Your task to perform on an android device: snooze an email in the gmail app Image 0: 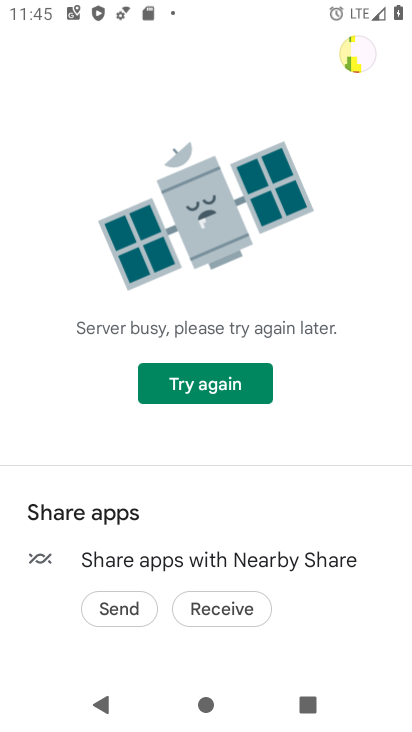
Step 0: press home button
Your task to perform on an android device: snooze an email in the gmail app Image 1: 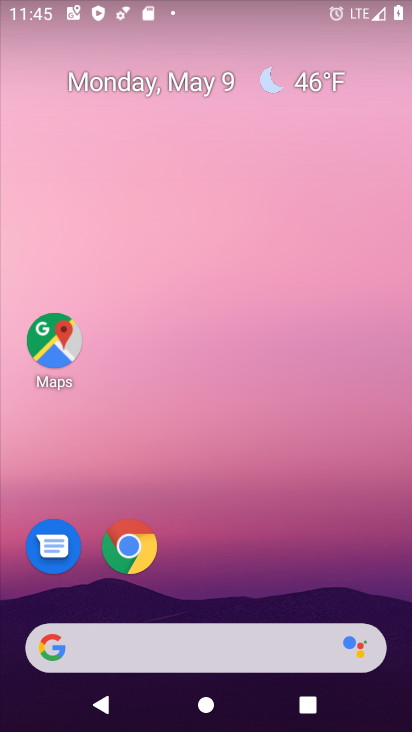
Step 1: drag from (344, 589) to (374, 0)
Your task to perform on an android device: snooze an email in the gmail app Image 2: 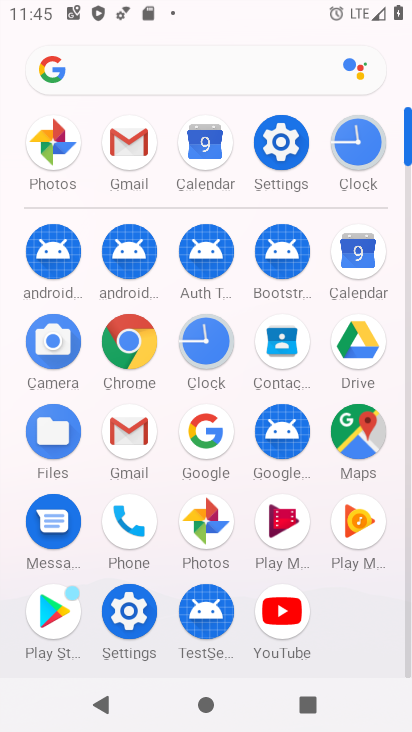
Step 2: click (123, 150)
Your task to perform on an android device: snooze an email in the gmail app Image 3: 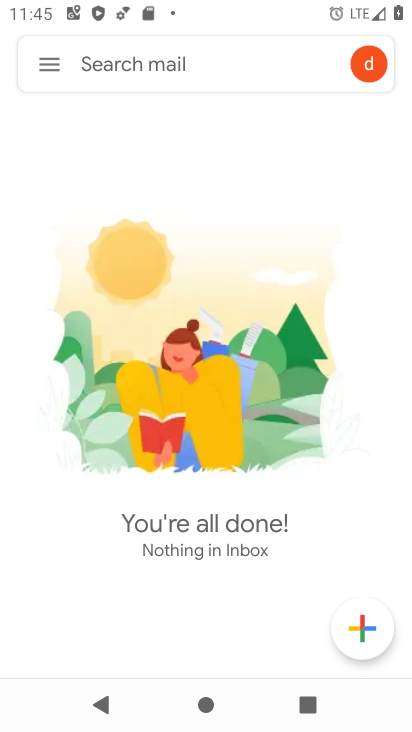
Step 3: click (47, 68)
Your task to perform on an android device: snooze an email in the gmail app Image 4: 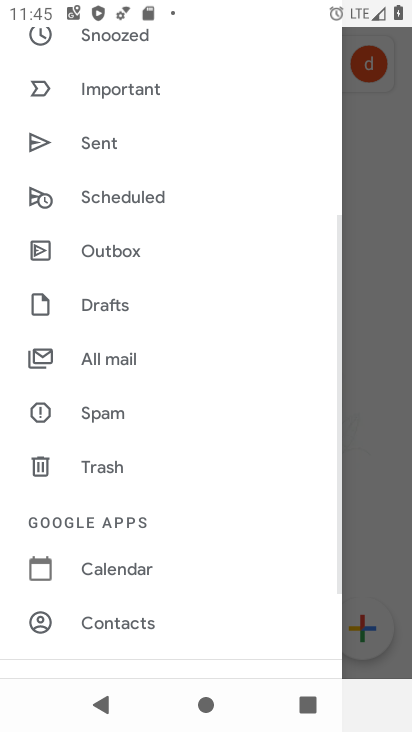
Step 4: click (127, 356)
Your task to perform on an android device: snooze an email in the gmail app Image 5: 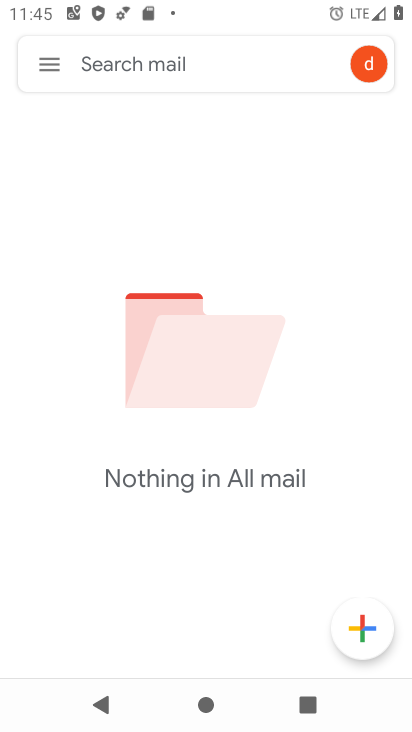
Step 5: task complete